Your task to perform on an android device: check google app version Image 0: 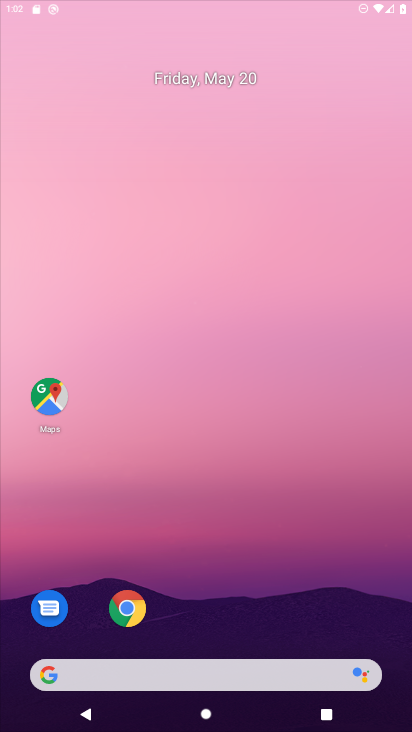
Step 0: press home button
Your task to perform on an android device: check google app version Image 1: 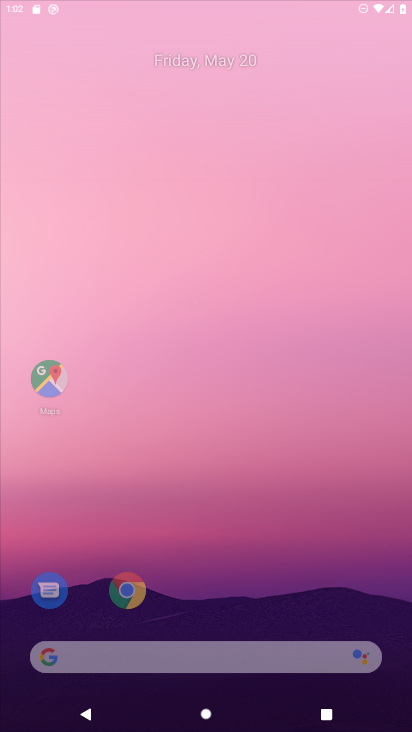
Step 1: drag from (225, 611) to (258, 18)
Your task to perform on an android device: check google app version Image 2: 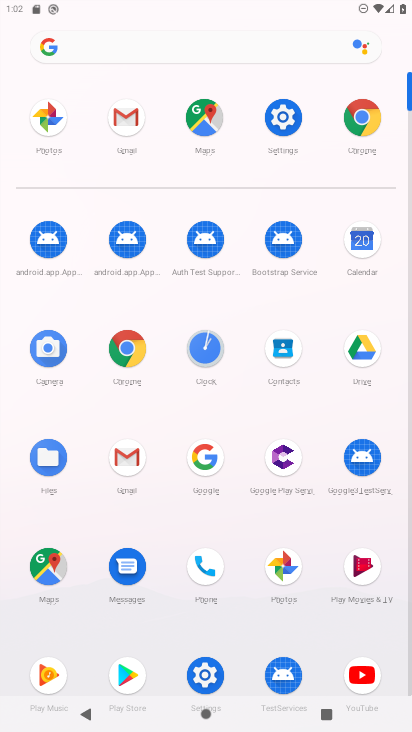
Step 2: click (227, 458)
Your task to perform on an android device: check google app version Image 3: 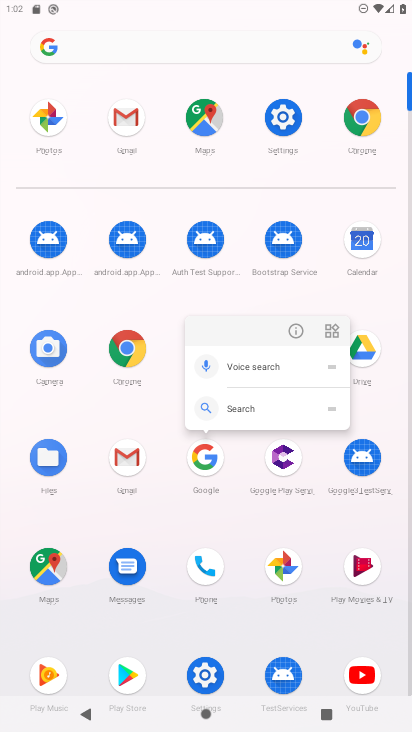
Step 3: click (285, 332)
Your task to perform on an android device: check google app version Image 4: 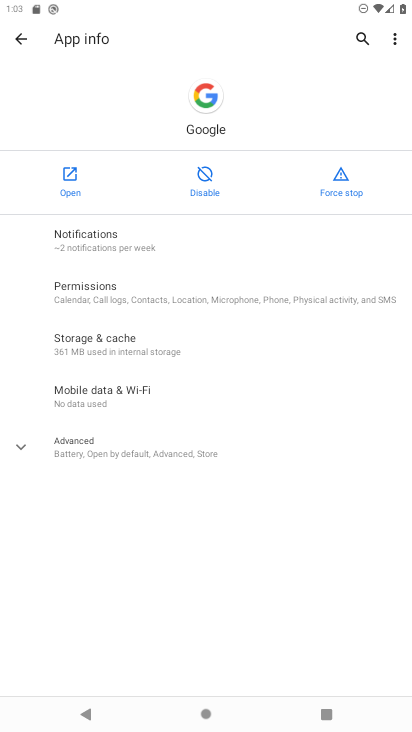
Step 4: click (72, 458)
Your task to perform on an android device: check google app version Image 5: 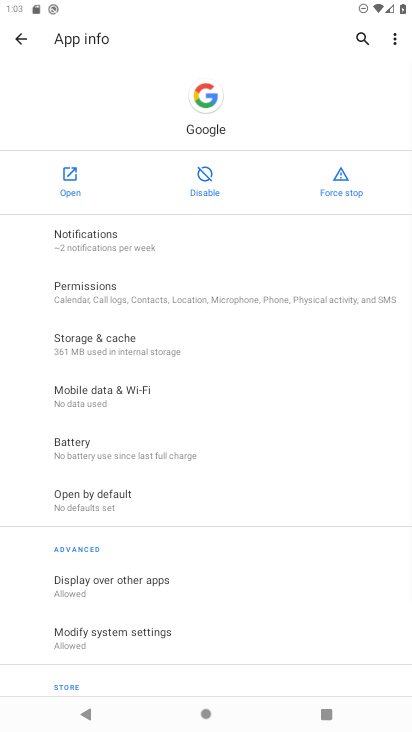
Step 5: task complete